Your task to perform on an android device: delete the emails in spam in the gmail app Image 0: 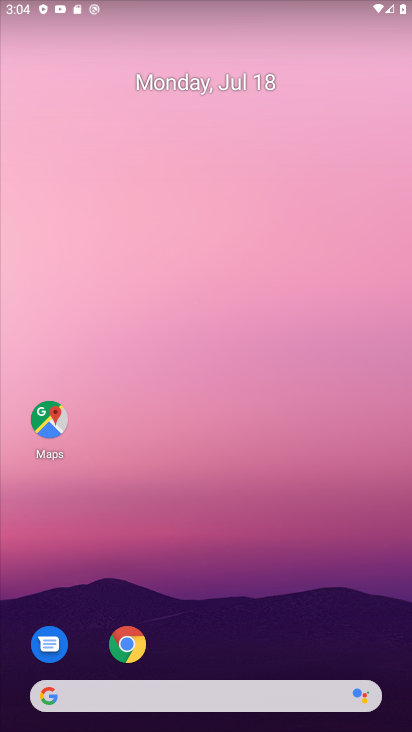
Step 0: drag from (368, 502) to (341, 0)
Your task to perform on an android device: delete the emails in spam in the gmail app Image 1: 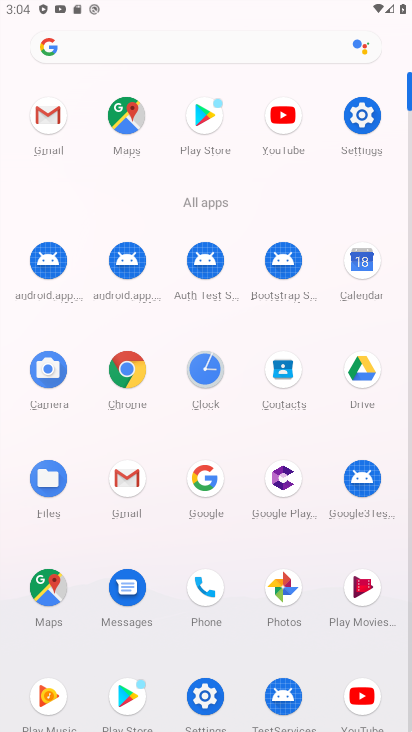
Step 1: click (125, 478)
Your task to perform on an android device: delete the emails in spam in the gmail app Image 2: 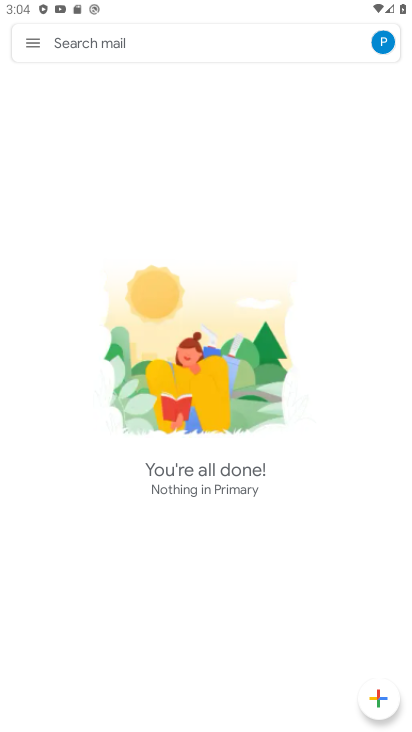
Step 2: click (35, 44)
Your task to perform on an android device: delete the emails in spam in the gmail app Image 3: 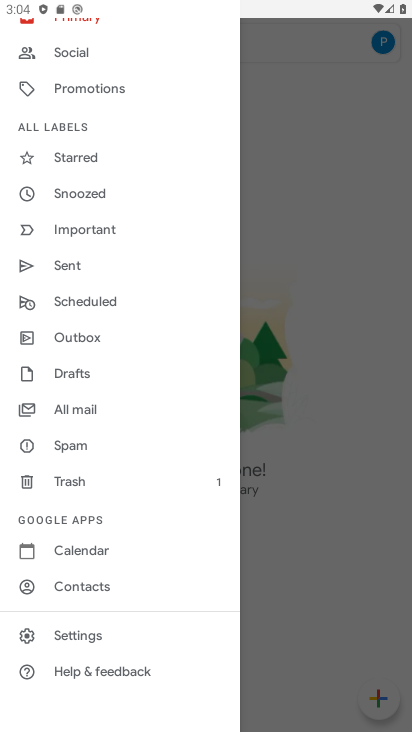
Step 3: click (68, 438)
Your task to perform on an android device: delete the emails in spam in the gmail app Image 4: 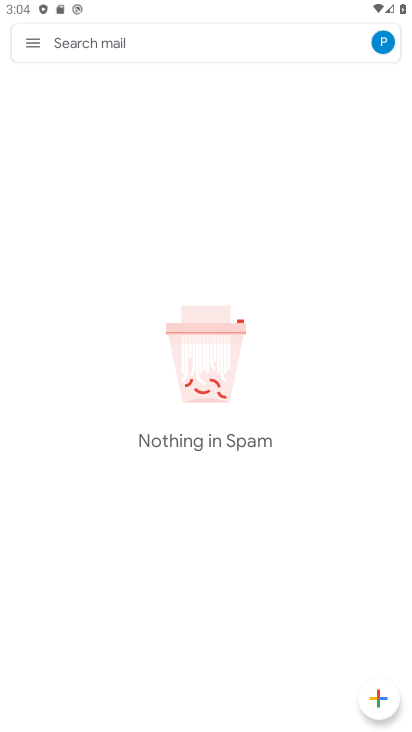
Step 4: task complete